Your task to perform on an android device: What's the weather? Image 0: 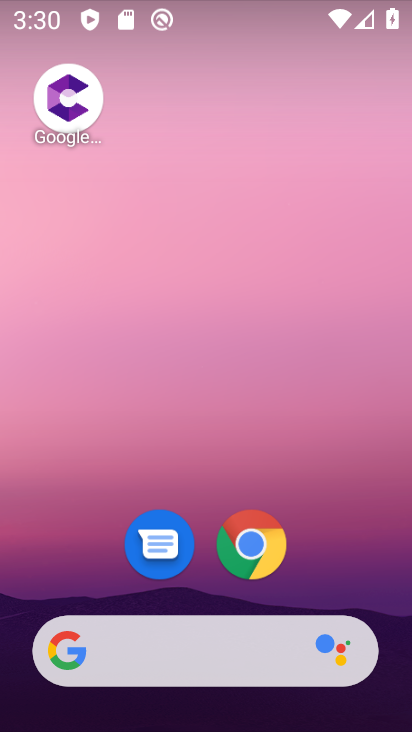
Step 0: drag from (100, 542) to (239, 150)
Your task to perform on an android device: What's the weather? Image 1: 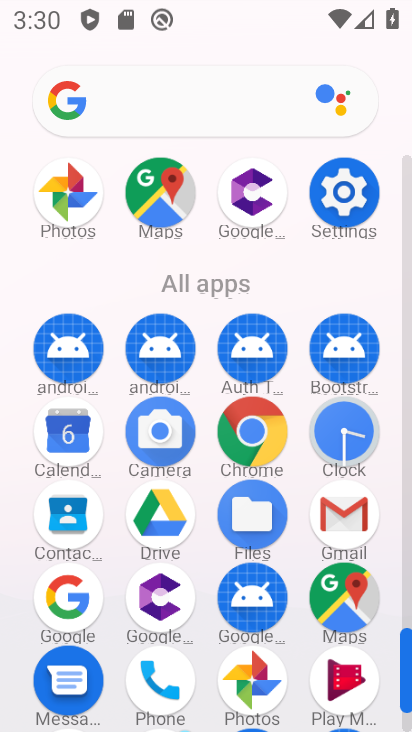
Step 1: click (81, 601)
Your task to perform on an android device: What's the weather? Image 2: 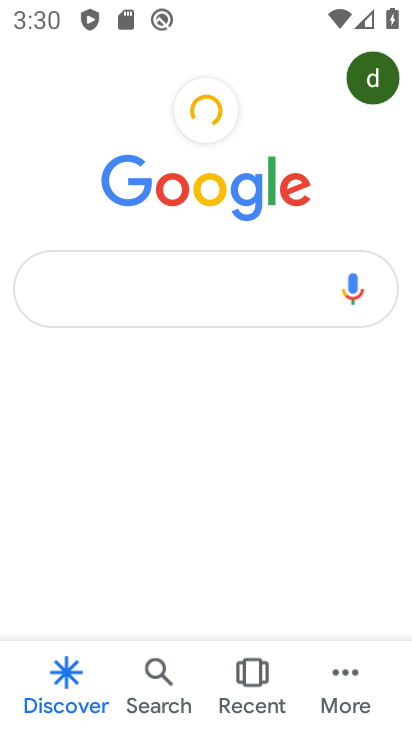
Step 2: click (193, 290)
Your task to perform on an android device: What's the weather? Image 3: 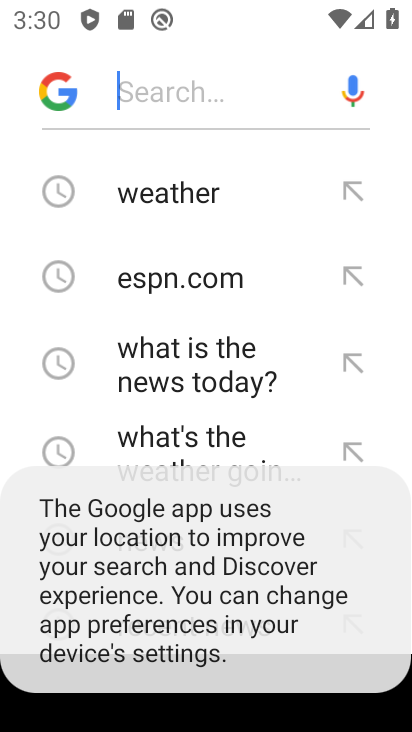
Step 3: click (169, 201)
Your task to perform on an android device: What's the weather? Image 4: 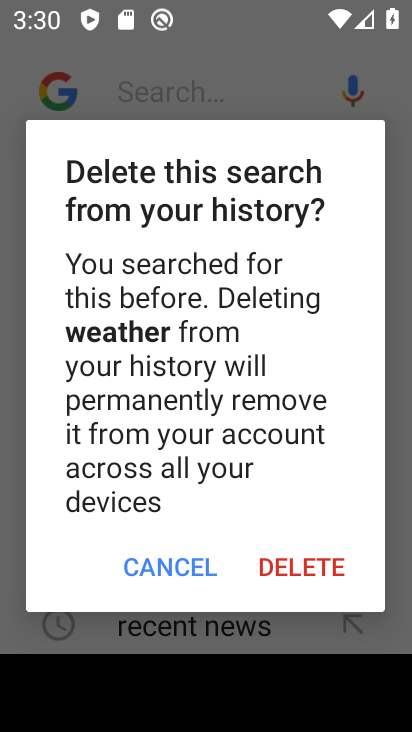
Step 4: click (168, 566)
Your task to perform on an android device: What's the weather? Image 5: 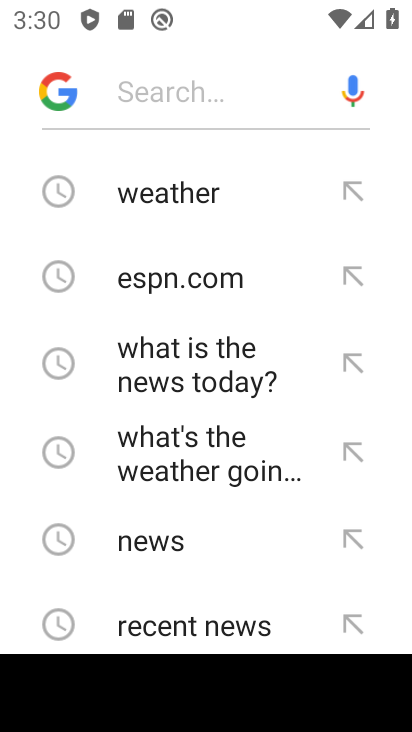
Step 5: click (56, 194)
Your task to perform on an android device: What's the weather? Image 6: 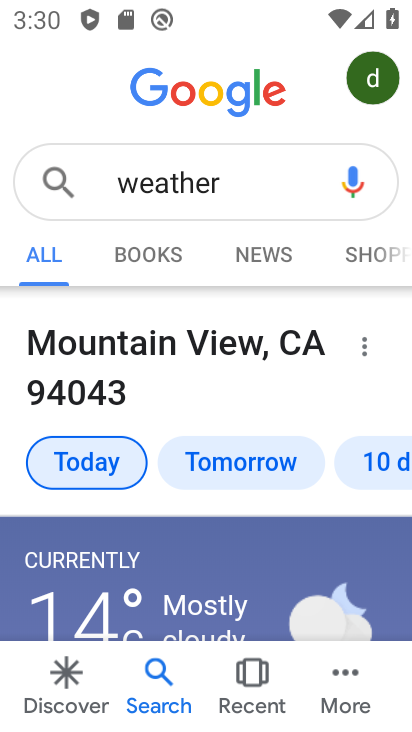
Step 6: task complete